Your task to perform on an android device: turn on improve location accuracy Image 0: 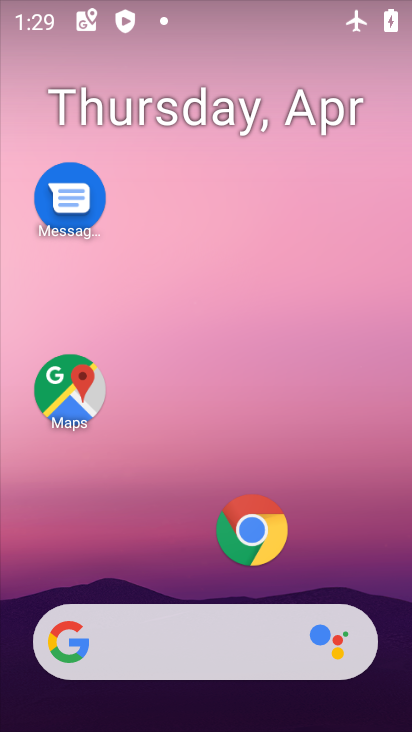
Step 0: drag from (202, 585) to (202, 5)
Your task to perform on an android device: turn on improve location accuracy Image 1: 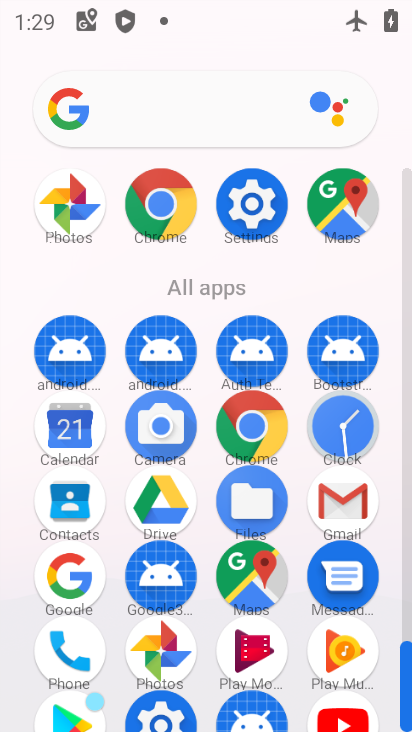
Step 1: click (250, 195)
Your task to perform on an android device: turn on improve location accuracy Image 2: 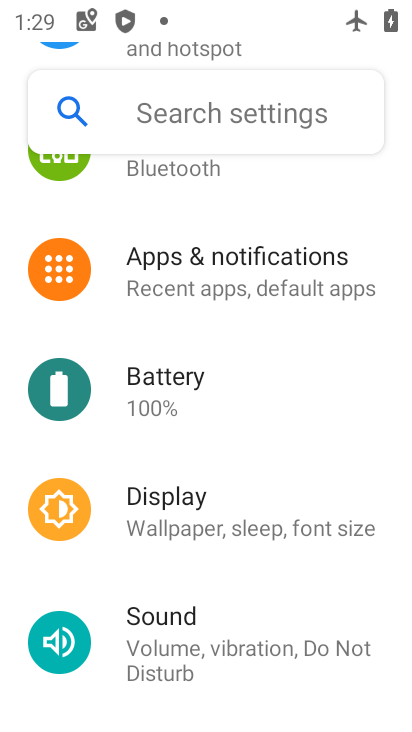
Step 2: drag from (286, 342) to (305, 642)
Your task to perform on an android device: turn on improve location accuracy Image 3: 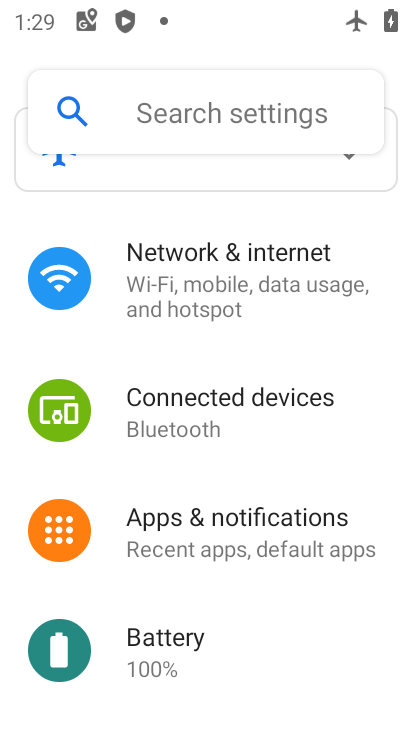
Step 3: drag from (289, 583) to (233, 170)
Your task to perform on an android device: turn on improve location accuracy Image 4: 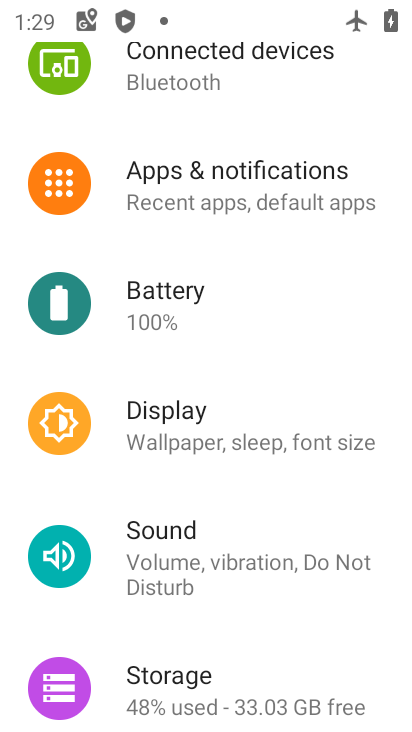
Step 4: drag from (253, 595) to (233, 275)
Your task to perform on an android device: turn on improve location accuracy Image 5: 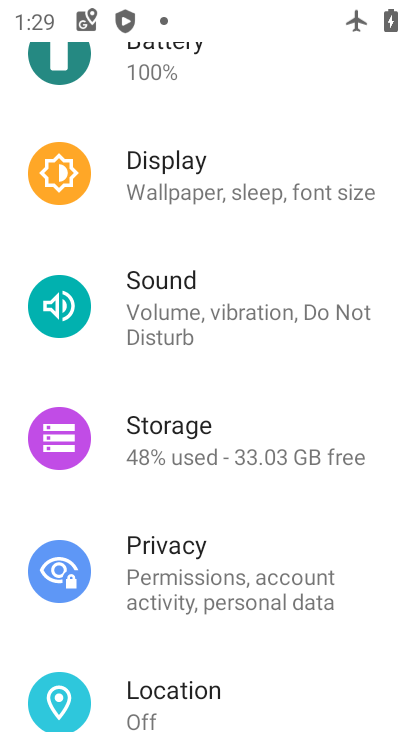
Step 5: click (203, 677)
Your task to perform on an android device: turn on improve location accuracy Image 6: 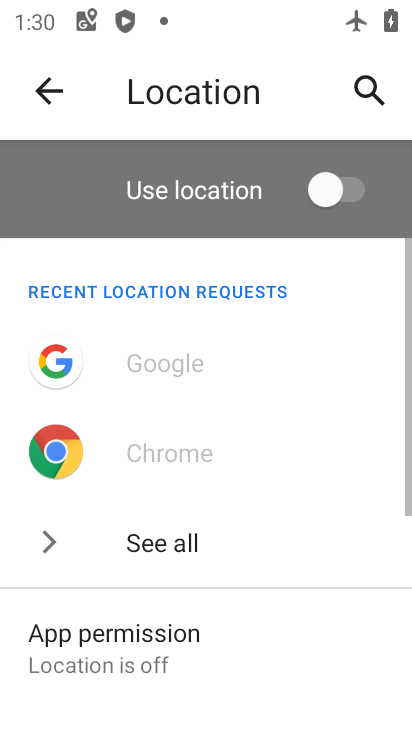
Step 6: drag from (234, 639) to (207, 199)
Your task to perform on an android device: turn on improve location accuracy Image 7: 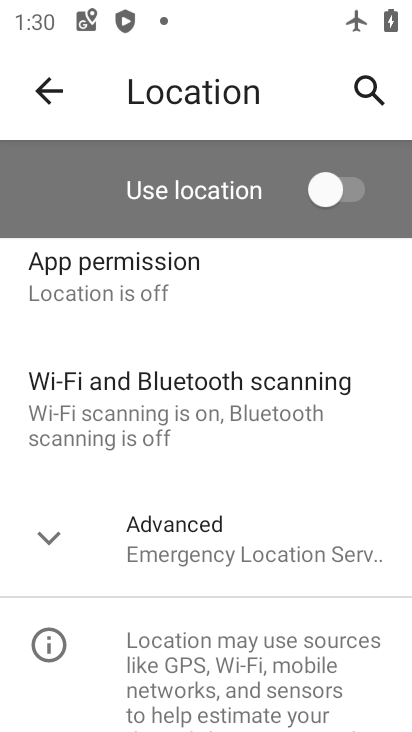
Step 7: click (196, 540)
Your task to perform on an android device: turn on improve location accuracy Image 8: 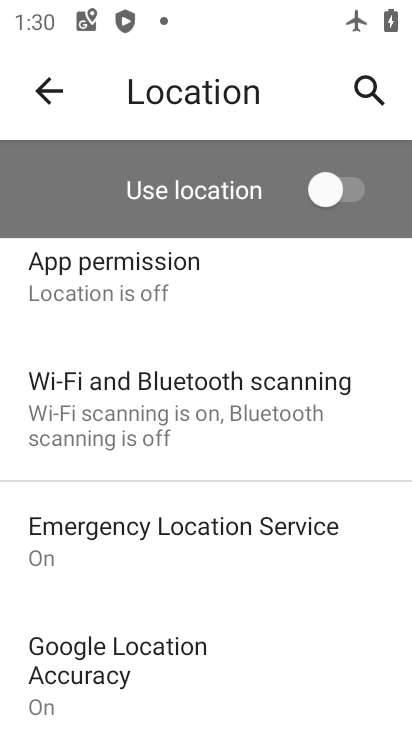
Step 8: drag from (215, 589) to (215, 255)
Your task to perform on an android device: turn on improve location accuracy Image 9: 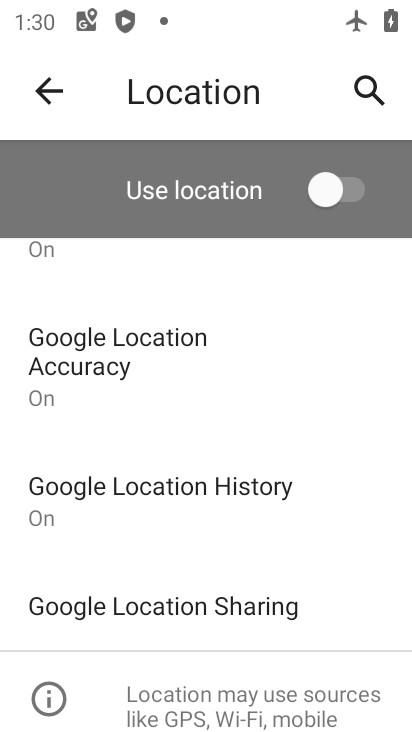
Step 9: click (166, 394)
Your task to perform on an android device: turn on improve location accuracy Image 10: 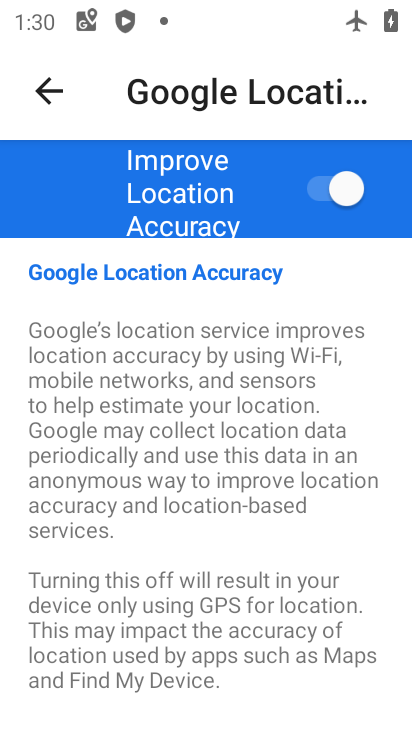
Step 10: task complete